Your task to perform on an android device: Open eBay Image 0: 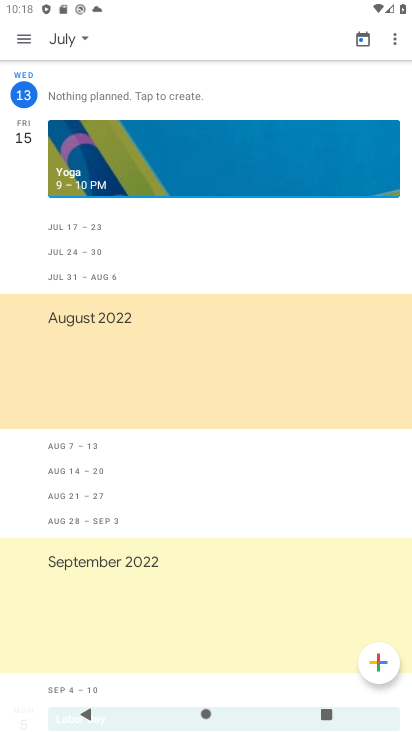
Step 0: press home button
Your task to perform on an android device: Open eBay Image 1: 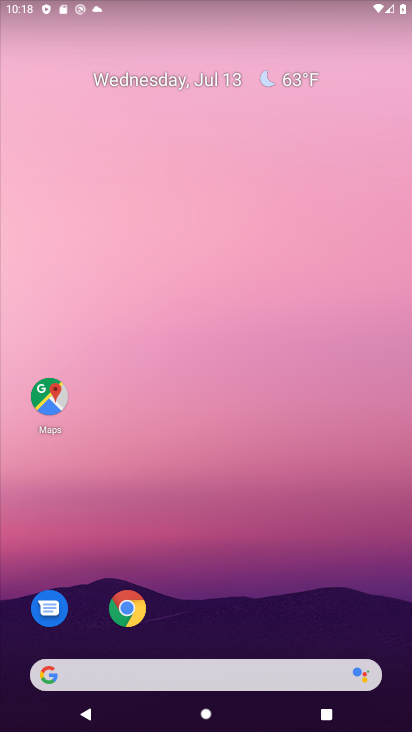
Step 1: click (147, 619)
Your task to perform on an android device: Open eBay Image 2: 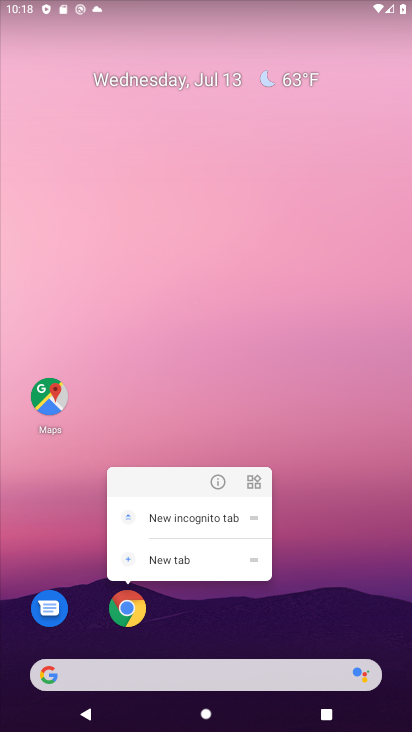
Step 2: click (140, 616)
Your task to perform on an android device: Open eBay Image 3: 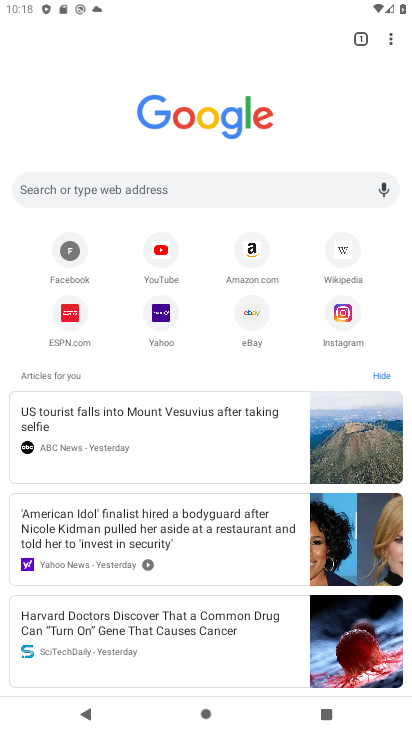
Step 3: click (249, 323)
Your task to perform on an android device: Open eBay Image 4: 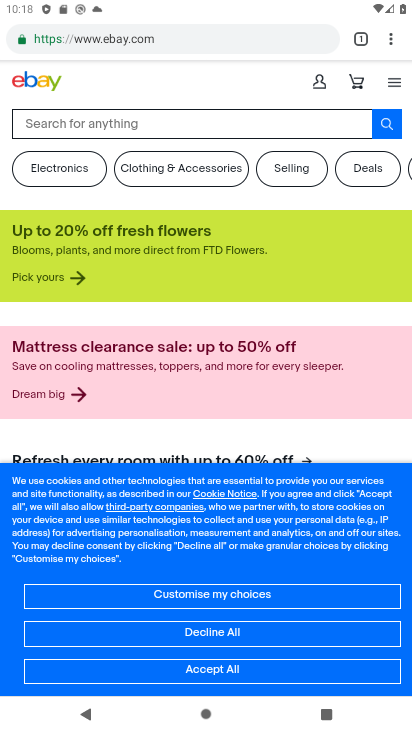
Step 4: task complete